Your task to perform on an android device: Open the web browser Image 0: 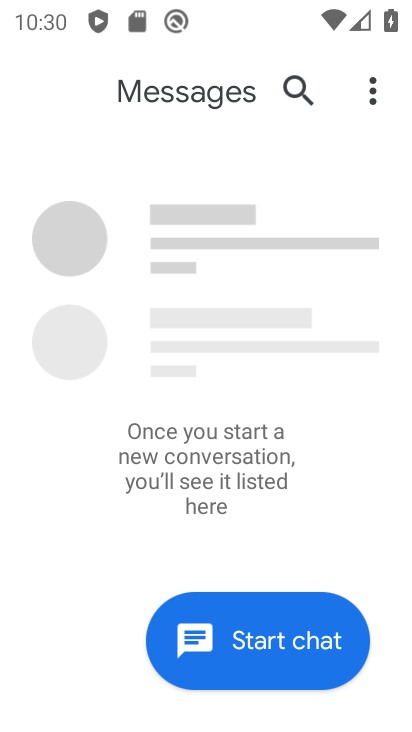
Step 0: press back button
Your task to perform on an android device: Open the web browser Image 1: 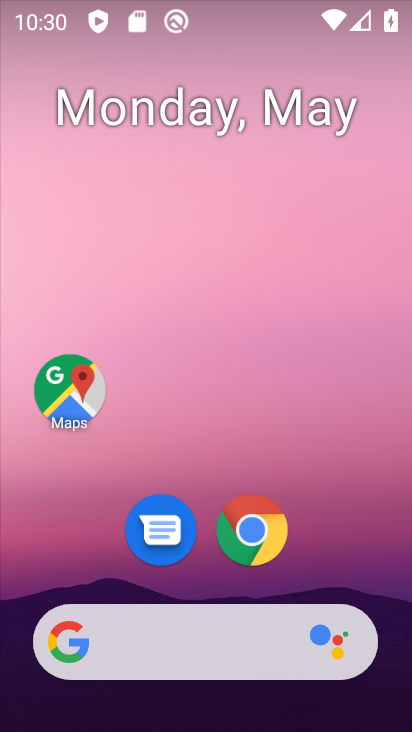
Step 1: click (251, 528)
Your task to perform on an android device: Open the web browser Image 2: 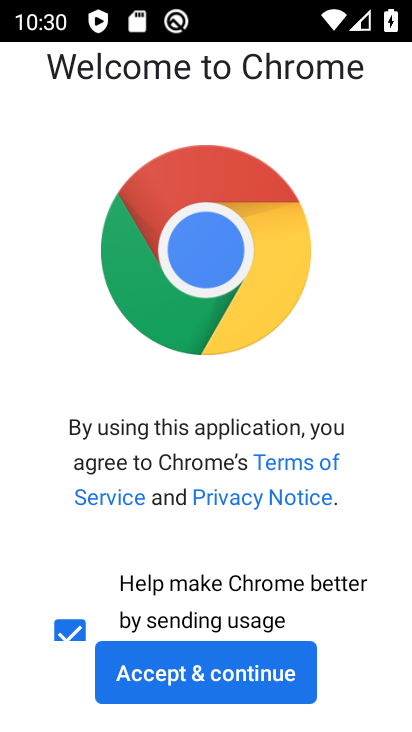
Step 2: click (218, 668)
Your task to perform on an android device: Open the web browser Image 3: 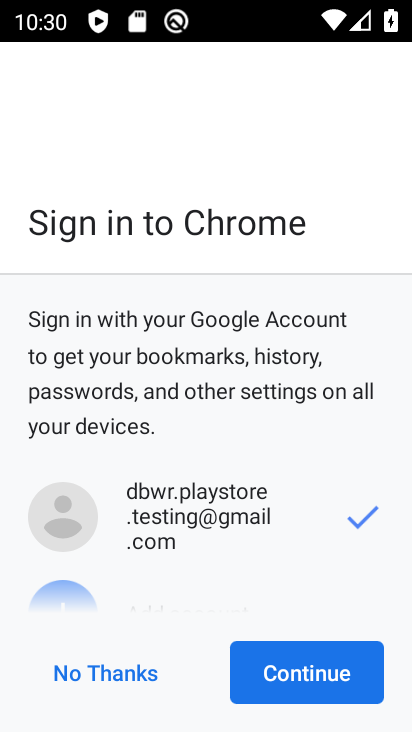
Step 3: click (297, 673)
Your task to perform on an android device: Open the web browser Image 4: 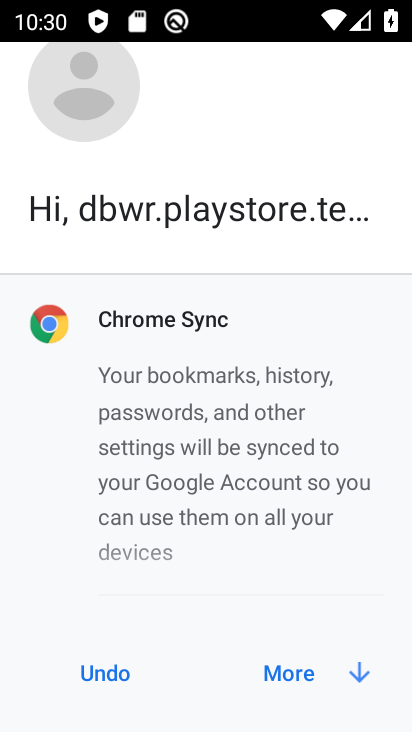
Step 4: click (297, 673)
Your task to perform on an android device: Open the web browser Image 5: 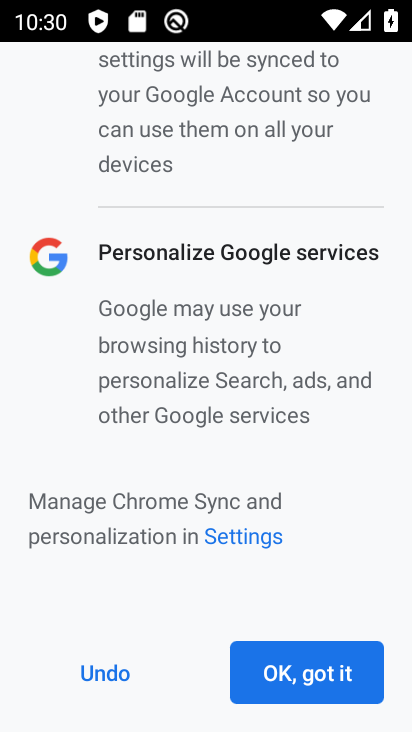
Step 5: click (297, 673)
Your task to perform on an android device: Open the web browser Image 6: 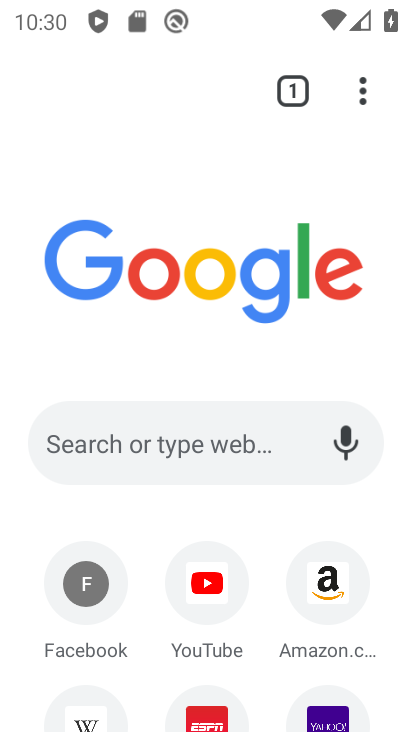
Step 6: task complete